Your task to perform on an android device: delete the emails in spam in the gmail app Image 0: 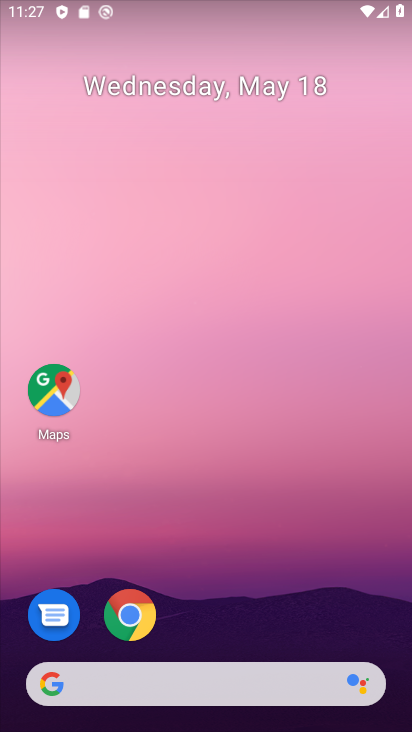
Step 0: drag from (53, 415) to (213, 170)
Your task to perform on an android device: delete the emails in spam in the gmail app Image 1: 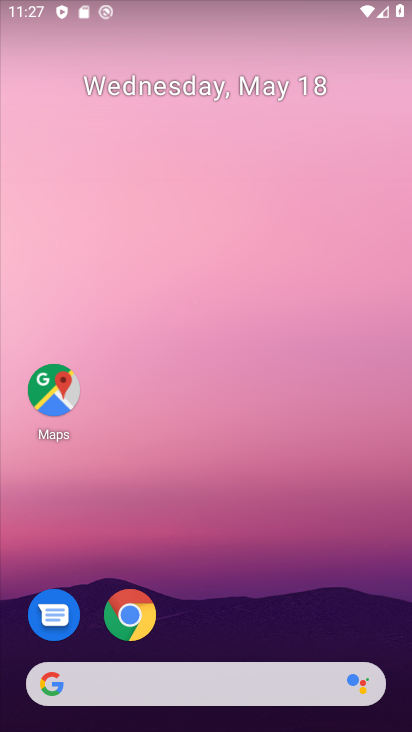
Step 1: drag from (59, 493) to (317, 60)
Your task to perform on an android device: delete the emails in spam in the gmail app Image 2: 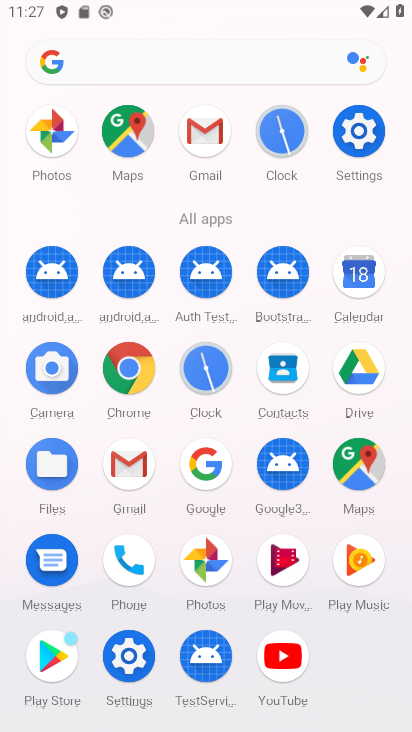
Step 2: click (214, 155)
Your task to perform on an android device: delete the emails in spam in the gmail app Image 3: 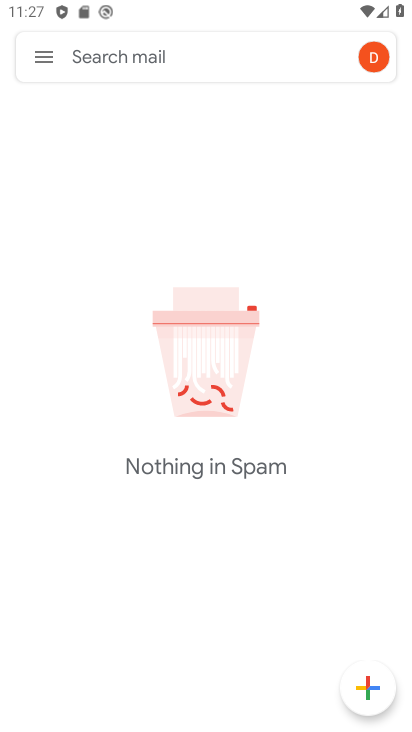
Step 3: click (48, 64)
Your task to perform on an android device: delete the emails in spam in the gmail app Image 4: 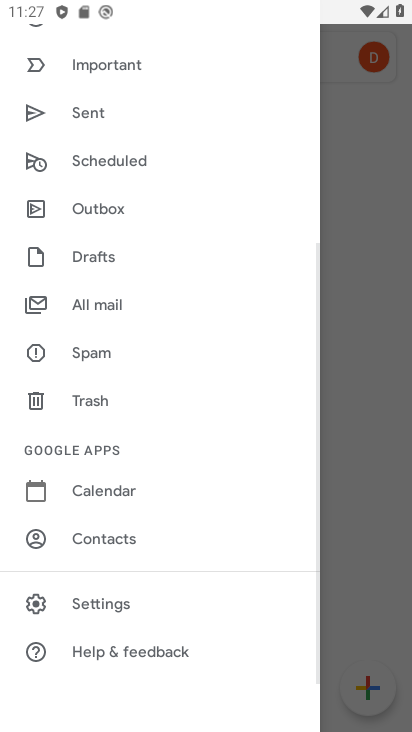
Step 4: click (62, 355)
Your task to perform on an android device: delete the emails in spam in the gmail app Image 5: 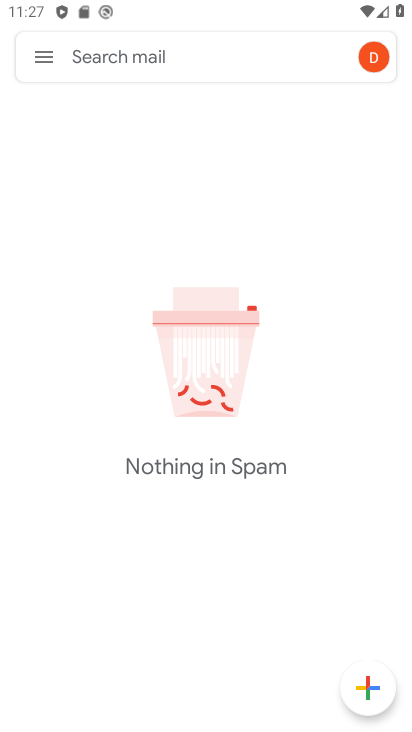
Step 5: task complete